Your task to perform on an android device: Open the map Image 0: 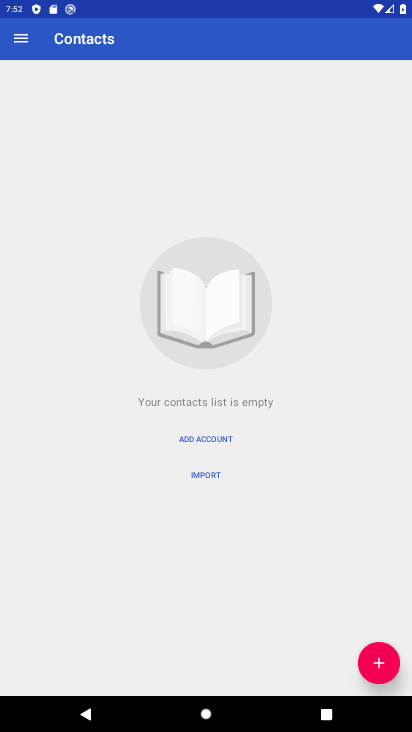
Step 0: press home button
Your task to perform on an android device: Open the map Image 1: 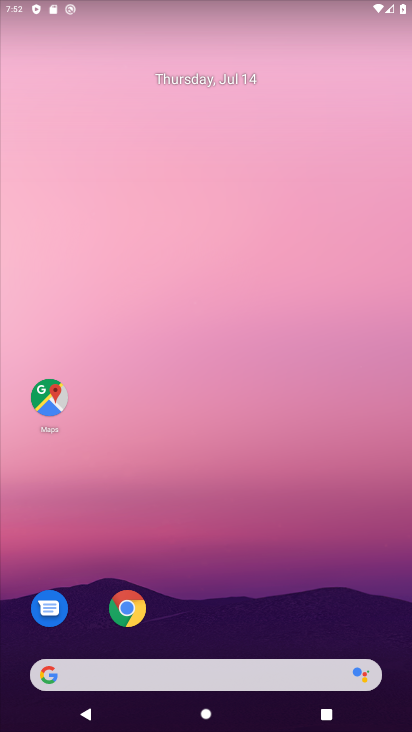
Step 1: click (46, 392)
Your task to perform on an android device: Open the map Image 2: 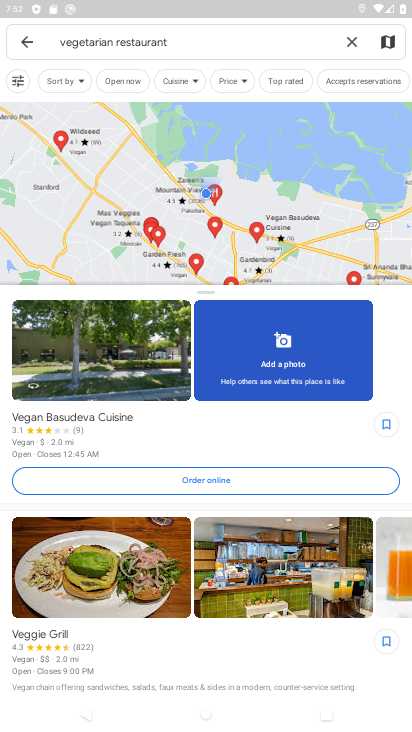
Step 2: task complete